Your task to perform on an android device: open chrome privacy settings Image 0: 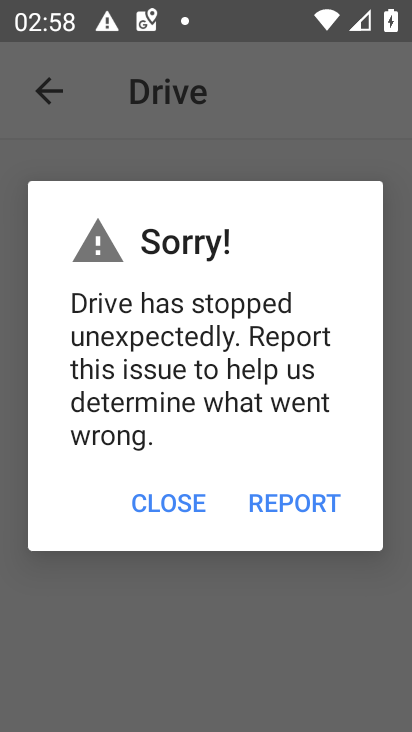
Step 0: press home button
Your task to perform on an android device: open chrome privacy settings Image 1: 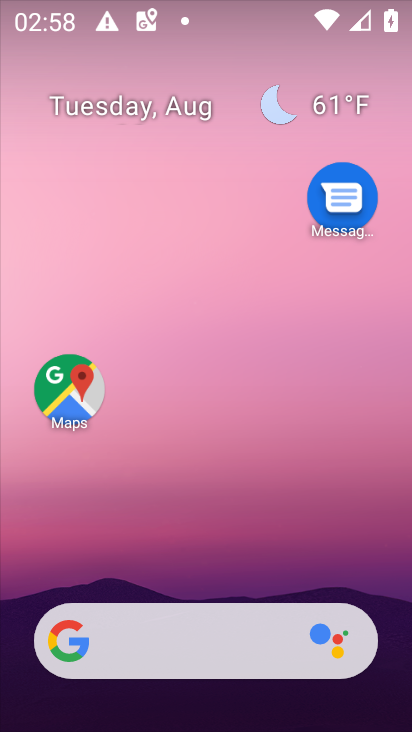
Step 1: drag from (216, 596) to (228, 63)
Your task to perform on an android device: open chrome privacy settings Image 2: 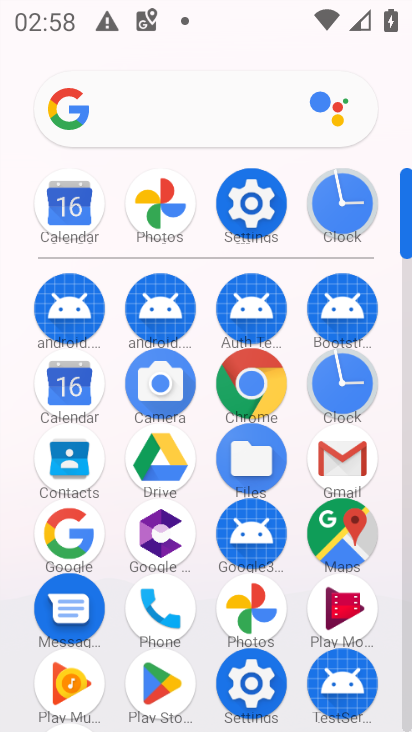
Step 2: click (266, 401)
Your task to perform on an android device: open chrome privacy settings Image 3: 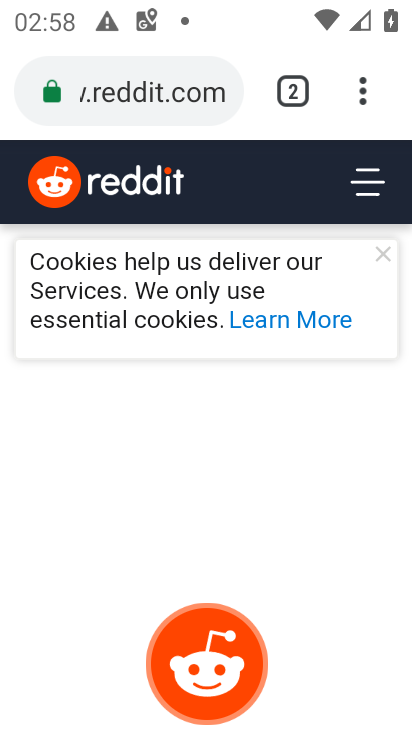
Step 3: click (364, 94)
Your task to perform on an android device: open chrome privacy settings Image 4: 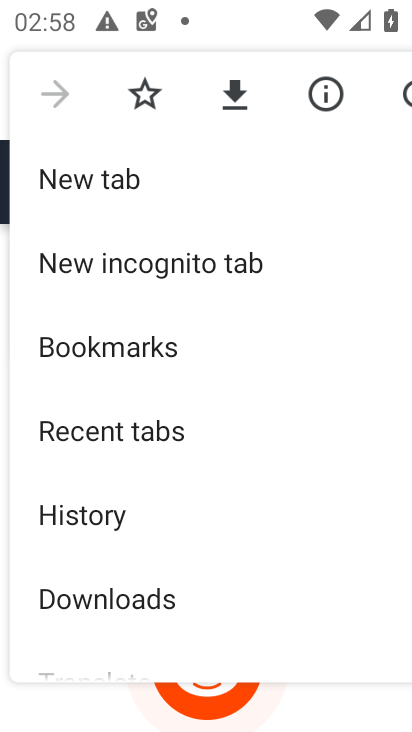
Step 4: drag from (236, 565) to (237, 296)
Your task to perform on an android device: open chrome privacy settings Image 5: 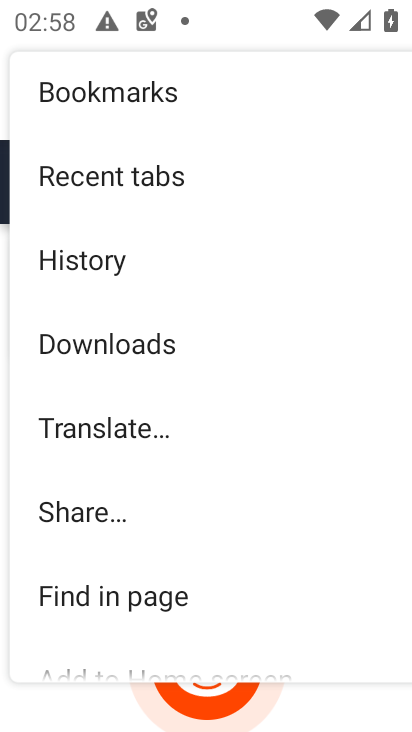
Step 5: drag from (213, 567) to (196, 231)
Your task to perform on an android device: open chrome privacy settings Image 6: 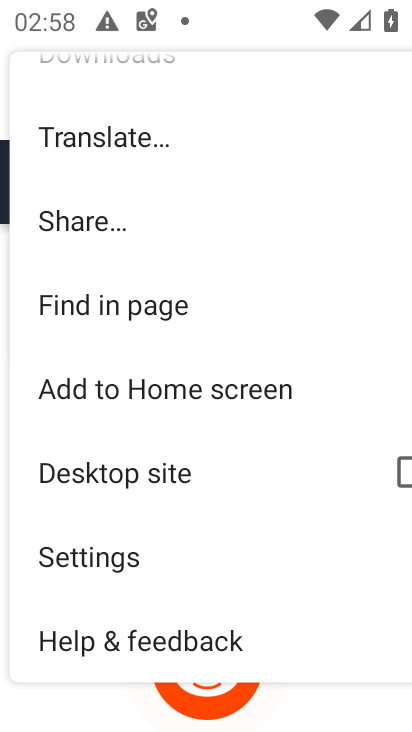
Step 6: click (152, 549)
Your task to perform on an android device: open chrome privacy settings Image 7: 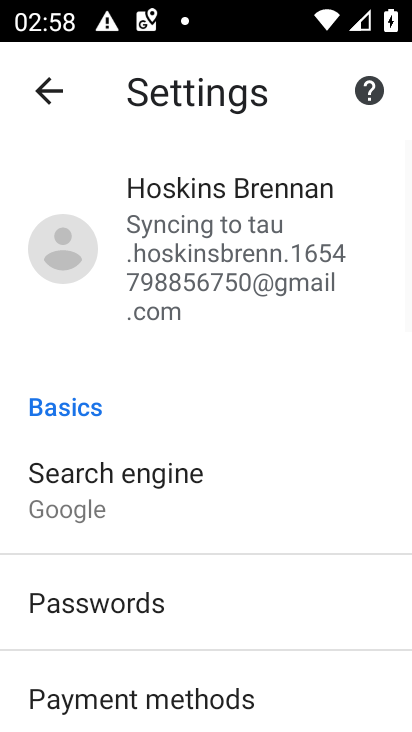
Step 7: drag from (169, 610) to (148, 207)
Your task to perform on an android device: open chrome privacy settings Image 8: 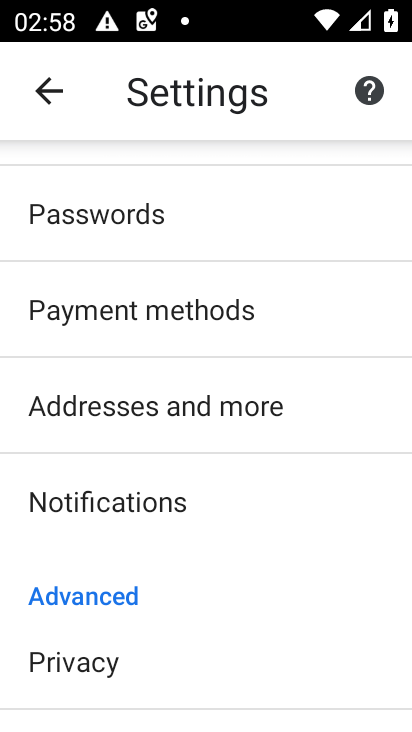
Step 8: click (152, 697)
Your task to perform on an android device: open chrome privacy settings Image 9: 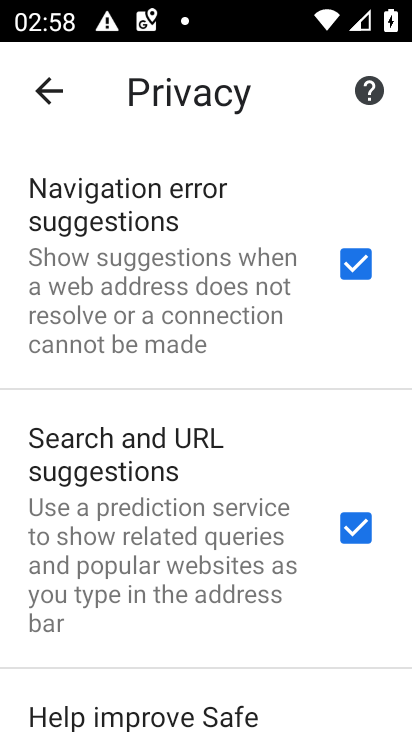
Step 9: task complete